Your task to perform on an android device: change the clock style Image 0: 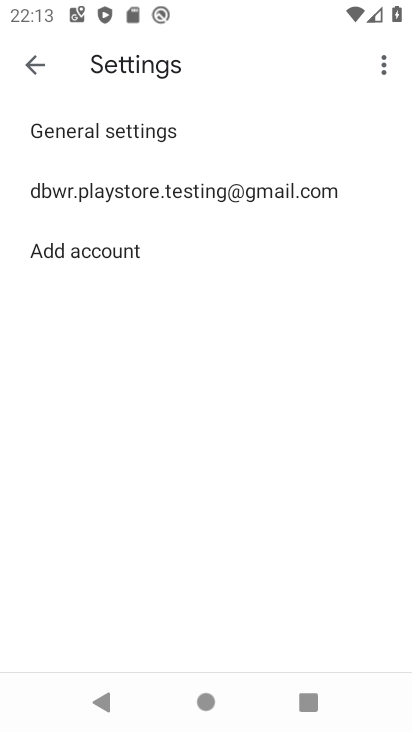
Step 0: click (207, 698)
Your task to perform on an android device: change the clock style Image 1: 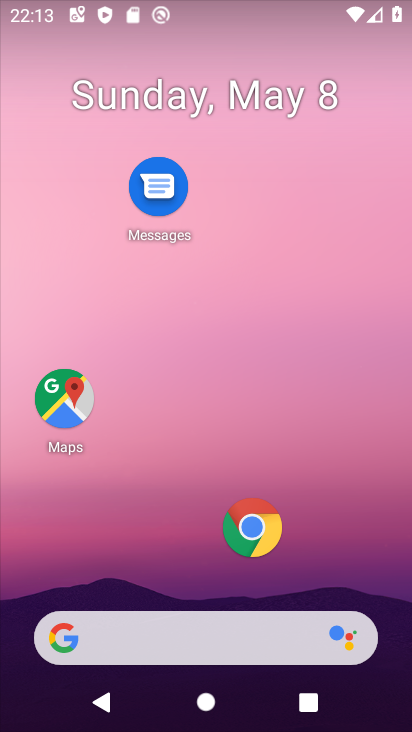
Step 1: drag from (157, 342) to (207, 58)
Your task to perform on an android device: change the clock style Image 2: 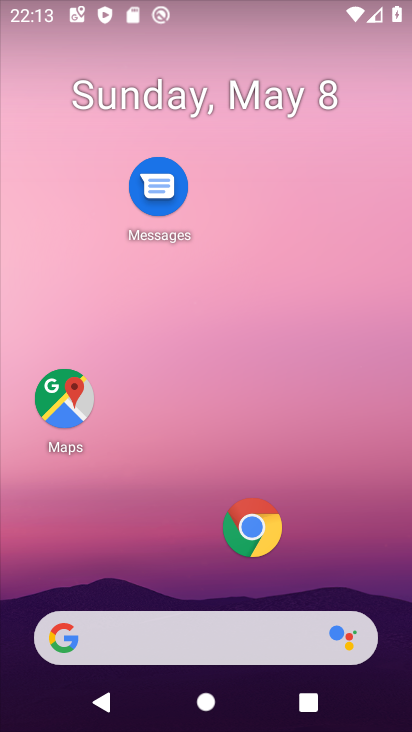
Step 2: drag from (182, 578) to (210, 93)
Your task to perform on an android device: change the clock style Image 3: 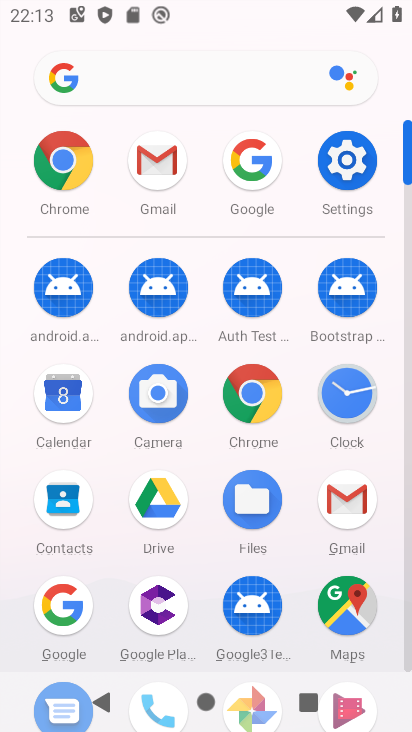
Step 3: click (349, 401)
Your task to perform on an android device: change the clock style Image 4: 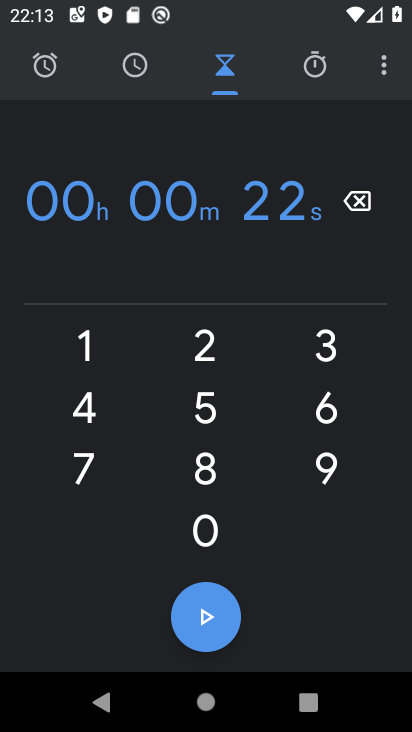
Step 4: click (376, 68)
Your task to perform on an android device: change the clock style Image 5: 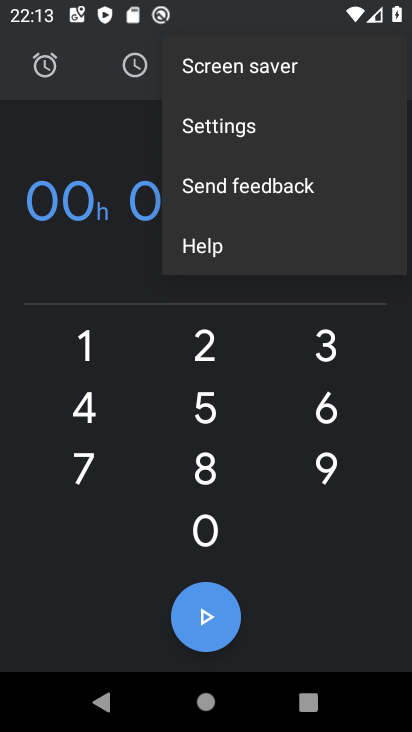
Step 5: click (322, 118)
Your task to perform on an android device: change the clock style Image 6: 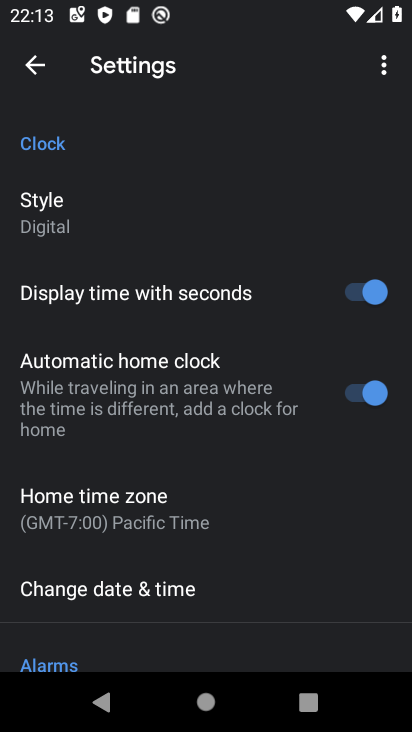
Step 6: click (128, 213)
Your task to perform on an android device: change the clock style Image 7: 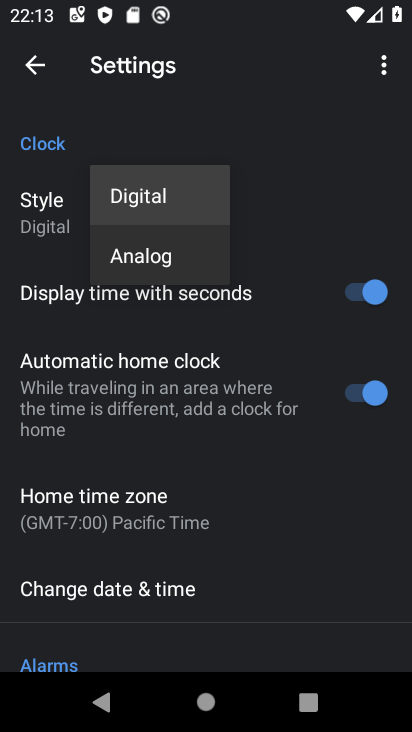
Step 7: click (139, 256)
Your task to perform on an android device: change the clock style Image 8: 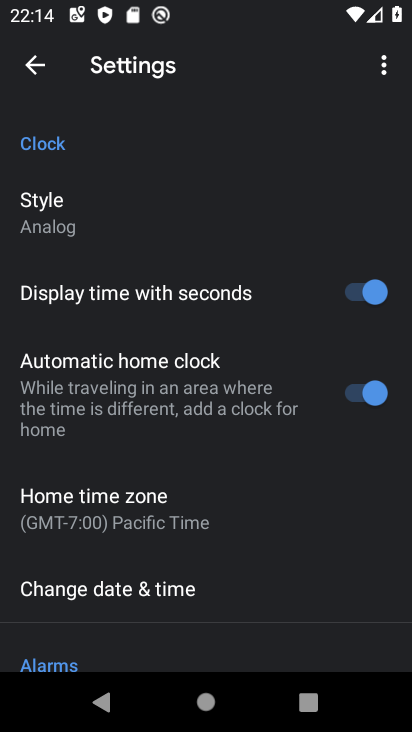
Step 8: task complete